Your task to perform on an android device: turn off notifications in google photos Image 0: 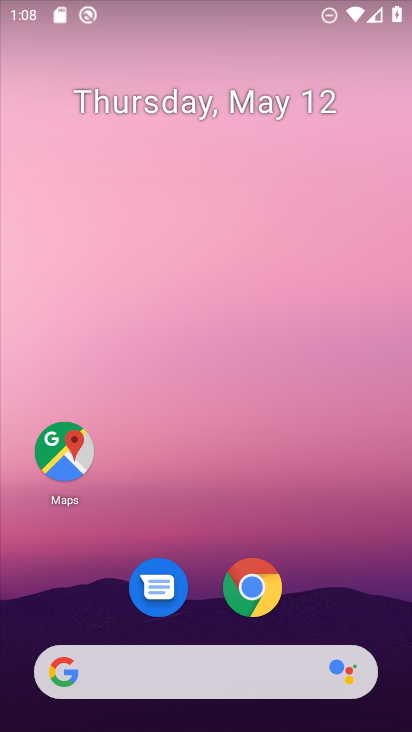
Step 0: drag from (342, 607) to (217, 17)
Your task to perform on an android device: turn off notifications in google photos Image 1: 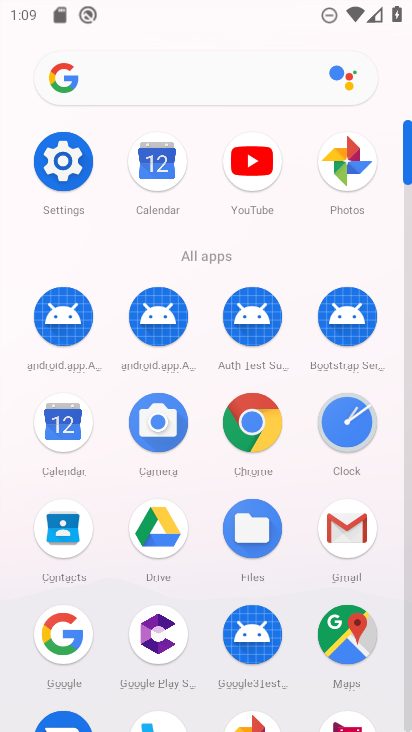
Step 1: drag from (294, 601) to (290, 211)
Your task to perform on an android device: turn off notifications in google photos Image 2: 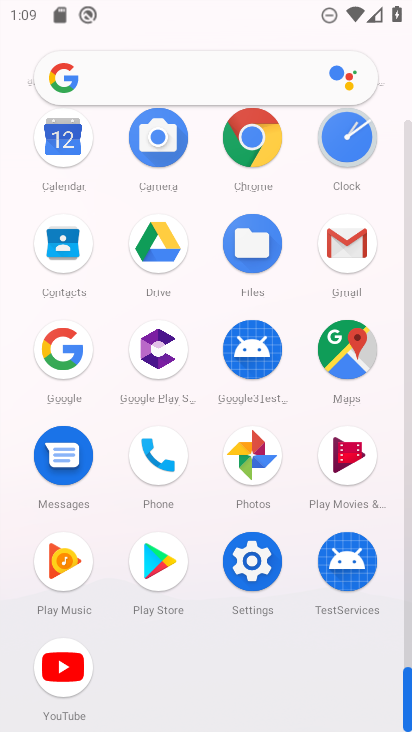
Step 2: click (253, 454)
Your task to perform on an android device: turn off notifications in google photos Image 3: 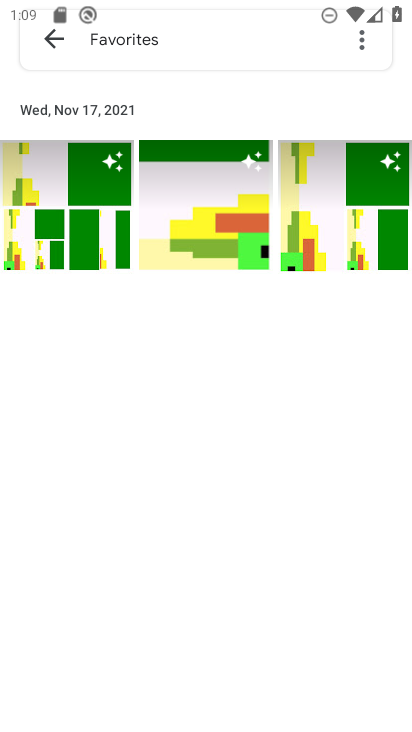
Step 3: press back button
Your task to perform on an android device: turn off notifications in google photos Image 4: 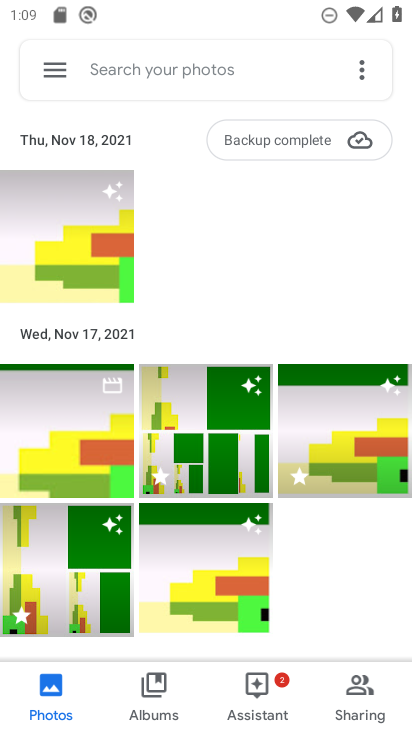
Step 4: click (52, 60)
Your task to perform on an android device: turn off notifications in google photos Image 5: 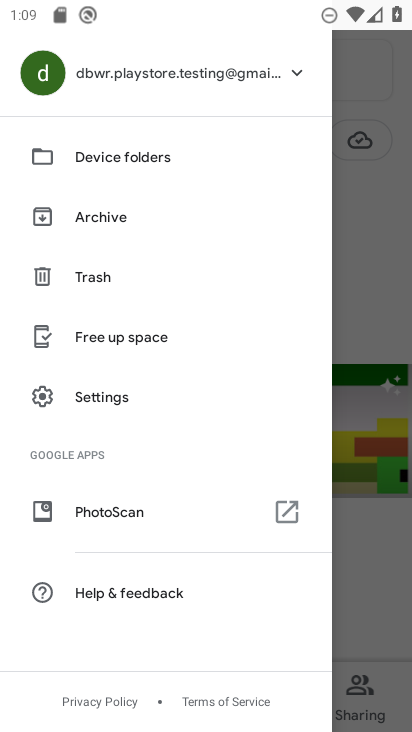
Step 5: click (100, 399)
Your task to perform on an android device: turn off notifications in google photos Image 6: 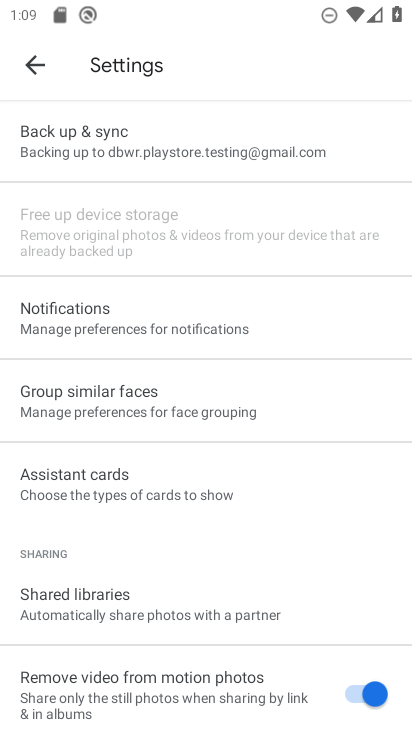
Step 6: click (71, 321)
Your task to perform on an android device: turn off notifications in google photos Image 7: 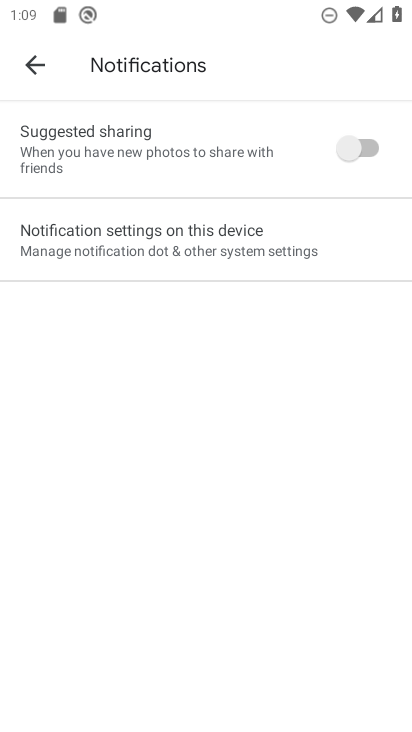
Step 7: click (204, 231)
Your task to perform on an android device: turn off notifications in google photos Image 8: 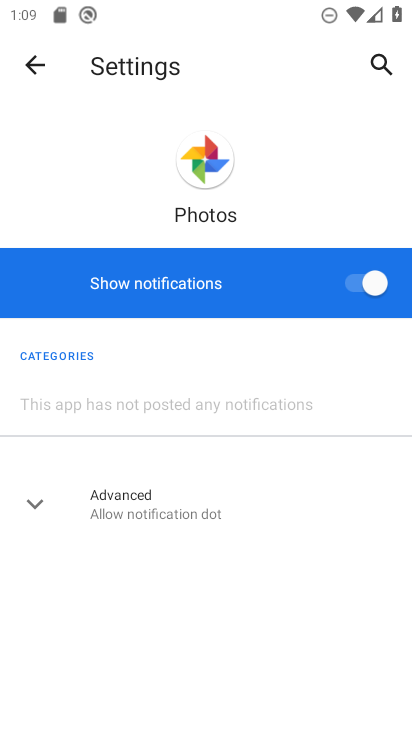
Step 8: click (378, 287)
Your task to perform on an android device: turn off notifications in google photos Image 9: 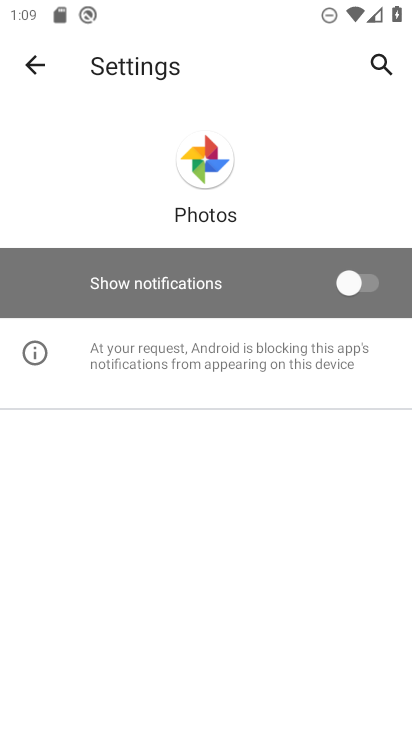
Step 9: task complete